Your task to perform on an android device: Open CNN.com Image 0: 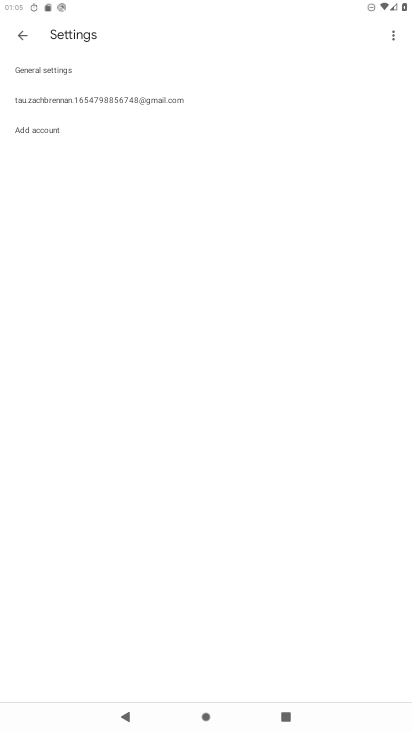
Step 0: press home button
Your task to perform on an android device: Open CNN.com Image 1: 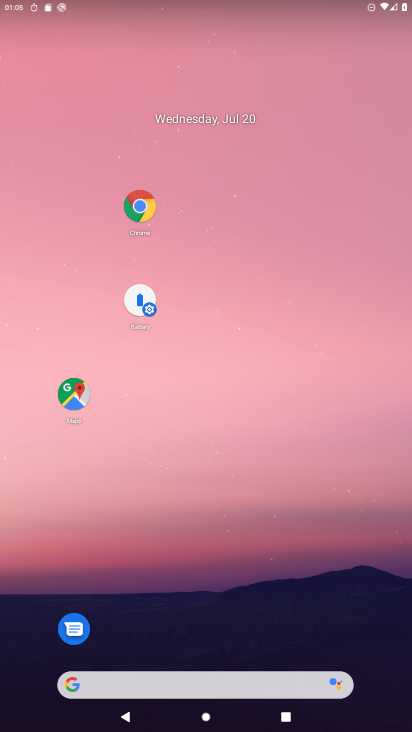
Step 1: drag from (165, 600) to (202, 9)
Your task to perform on an android device: Open CNN.com Image 2: 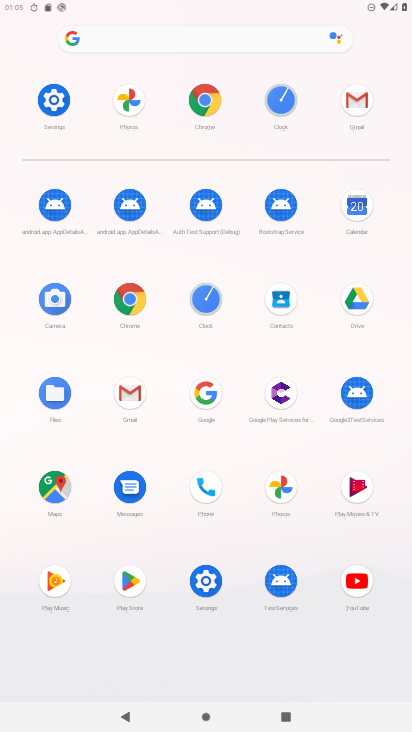
Step 2: click (153, 42)
Your task to perform on an android device: Open CNN.com Image 3: 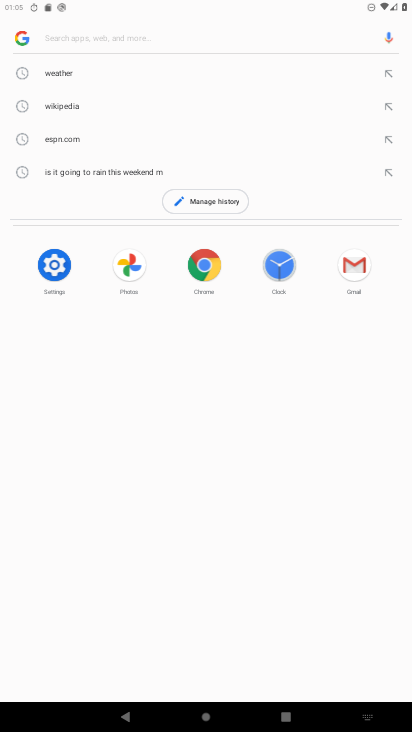
Step 3: type "cnn.com"
Your task to perform on an android device: Open CNN.com Image 4: 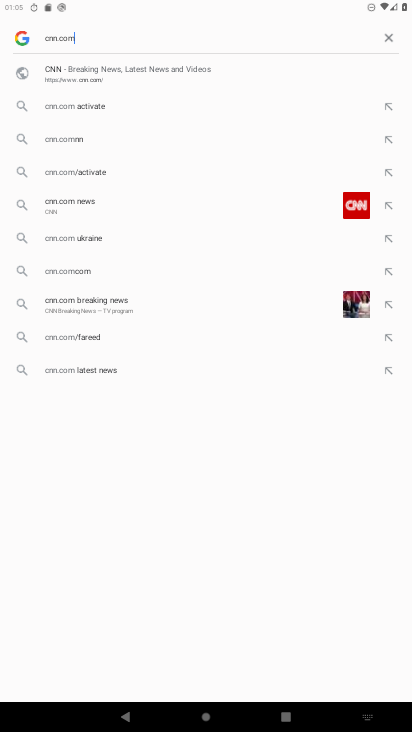
Step 4: click (91, 136)
Your task to perform on an android device: Open CNN.com Image 5: 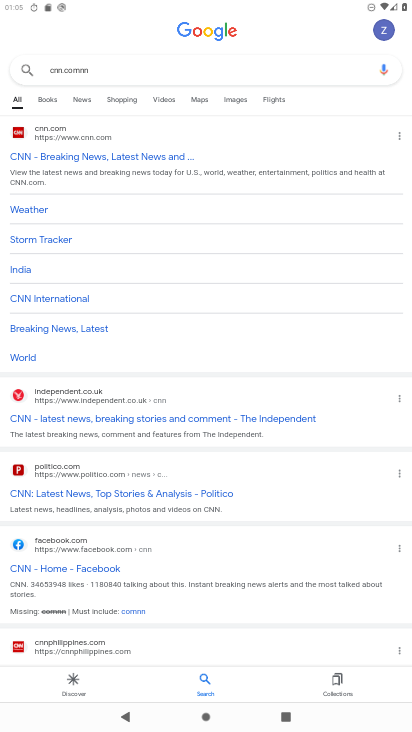
Step 5: click (75, 159)
Your task to perform on an android device: Open CNN.com Image 6: 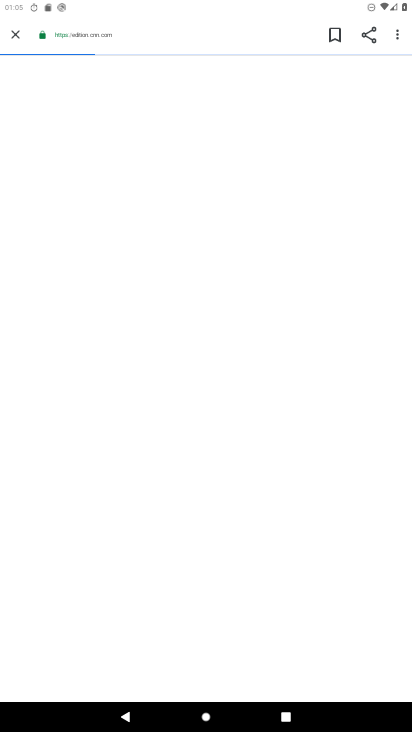
Step 6: task complete